Your task to perform on an android device: open the mobile data screen to see how much data has been used Image 0: 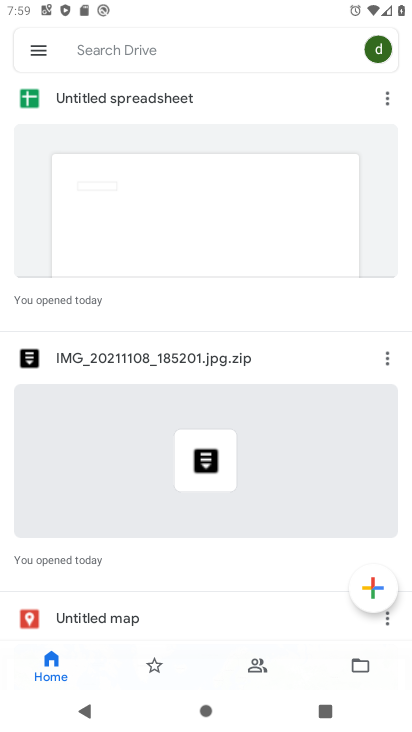
Step 0: press home button
Your task to perform on an android device: open the mobile data screen to see how much data has been used Image 1: 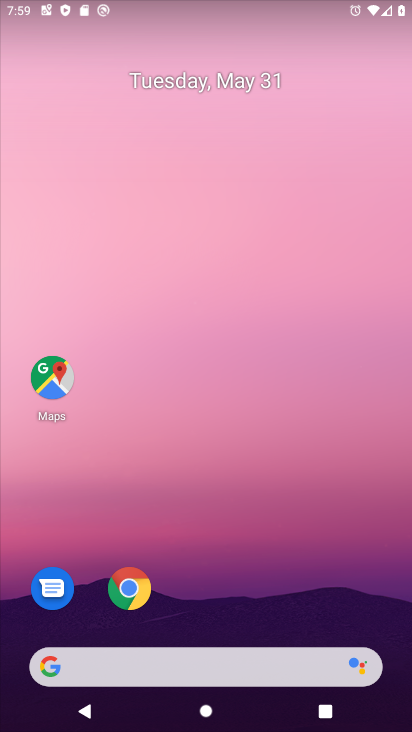
Step 1: drag from (230, 582) to (258, 179)
Your task to perform on an android device: open the mobile data screen to see how much data has been used Image 2: 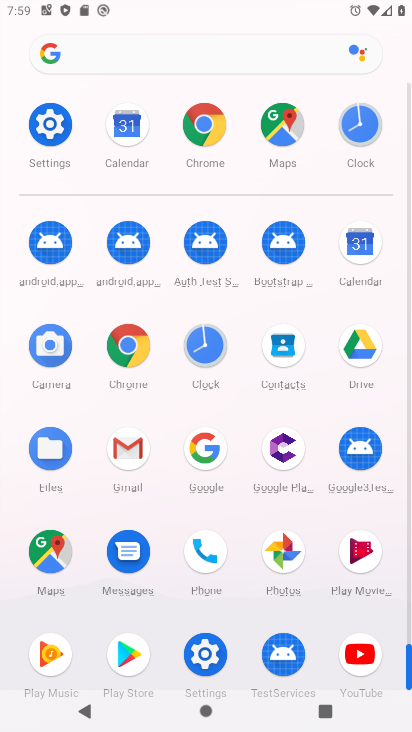
Step 2: click (214, 633)
Your task to perform on an android device: open the mobile data screen to see how much data has been used Image 3: 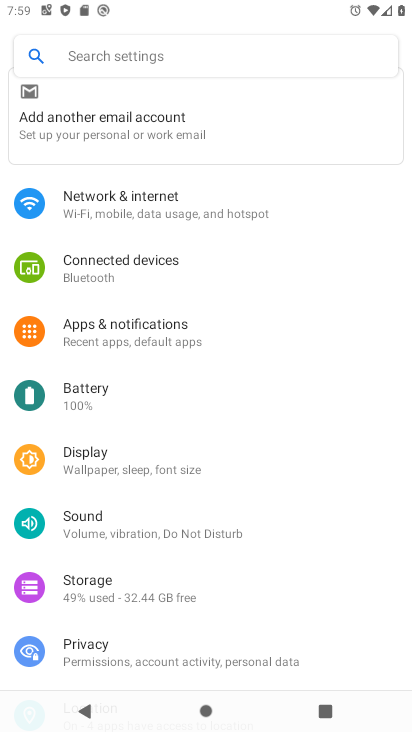
Step 3: click (189, 198)
Your task to perform on an android device: open the mobile data screen to see how much data has been used Image 4: 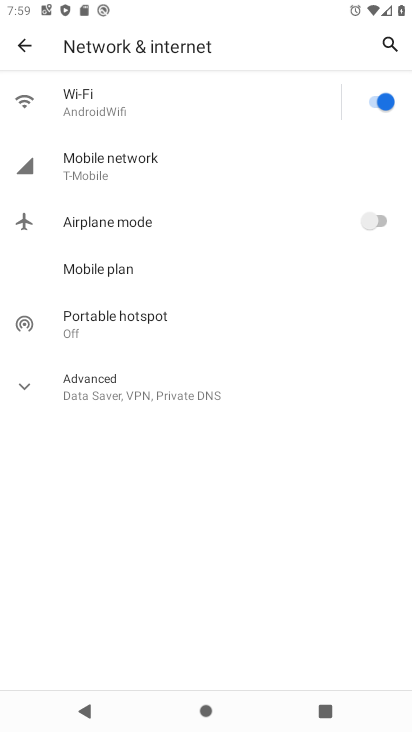
Step 4: click (149, 169)
Your task to perform on an android device: open the mobile data screen to see how much data has been used Image 5: 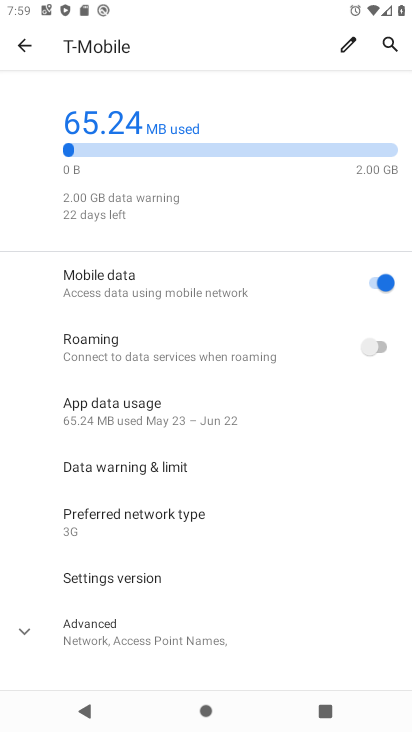
Step 5: click (195, 413)
Your task to perform on an android device: open the mobile data screen to see how much data has been used Image 6: 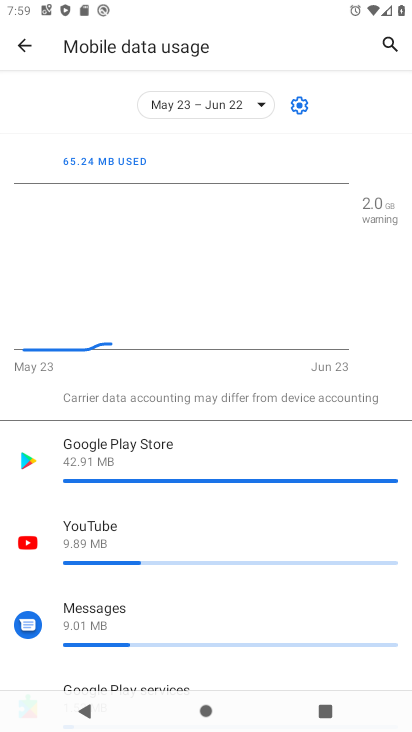
Step 6: task complete